Your task to perform on an android device: turn on notifications settings in the gmail app Image 0: 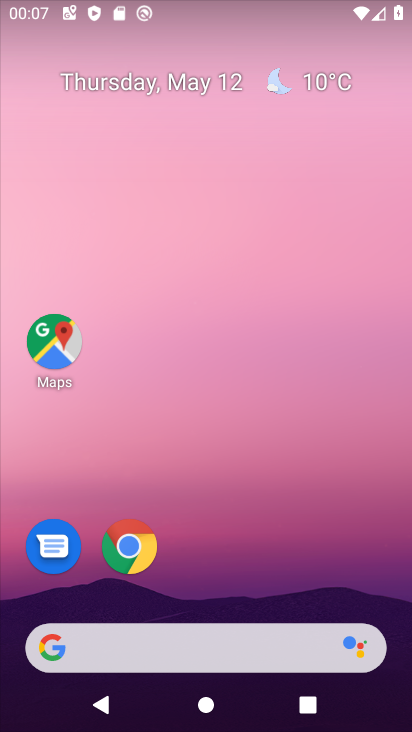
Step 0: drag from (152, 587) to (152, 236)
Your task to perform on an android device: turn on notifications settings in the gmail app Image 1: 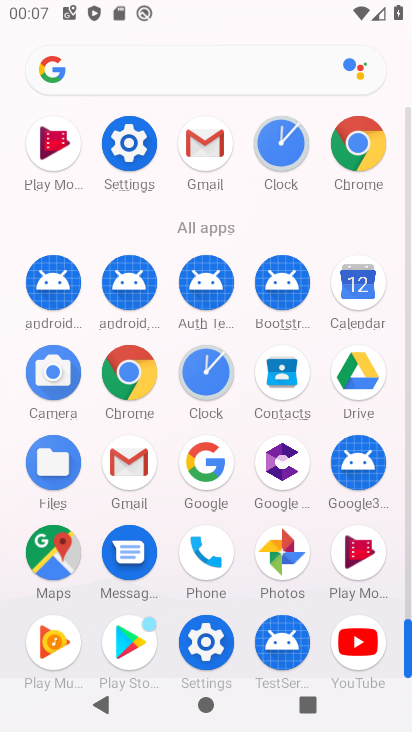
Step 1: click (130, 473)
Your task to perform on an android device: turn on notifications settings in the gmail app Image 2: 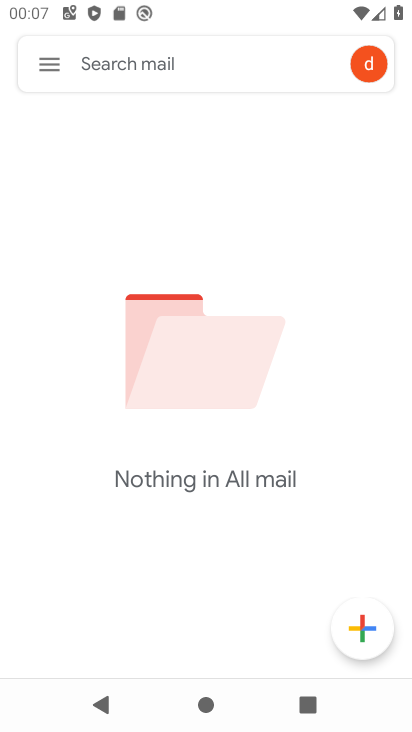
Step 2: click (50, 57)
Your task to perform on an android device: turn on notifications settings in the gmail app Image 3: 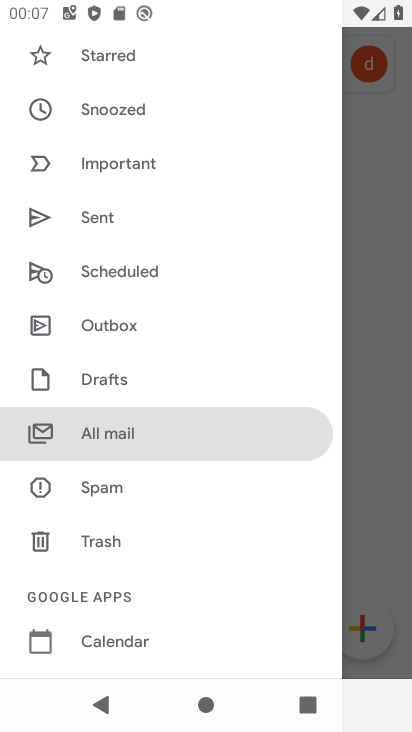
Step 3: drag from (147, 574) to (204, 325)
Your task to perform on an android device: turn on notifications settings in the gmail app Image 4: 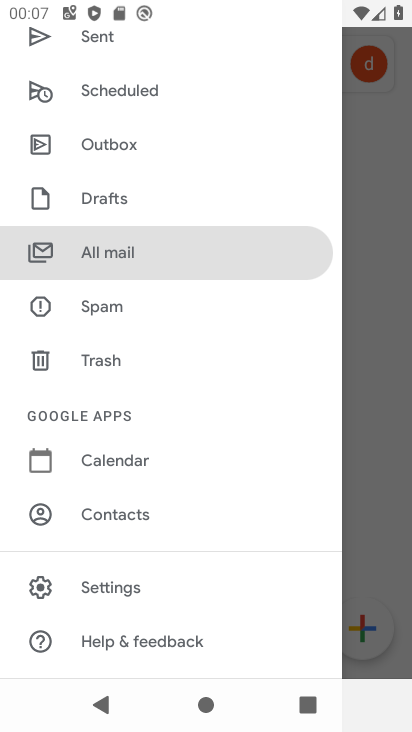
Step 4: click (107, 588)
Your task to perform on an android device: turn on notifications settings in the gmail app Image 5: 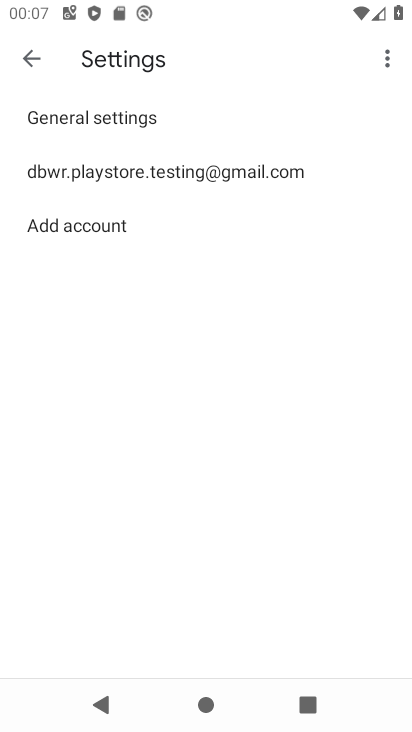
Step 5: click (185, 166)
Your task to perform on an android device: turn on notifications settings in the gmail app Image 6: 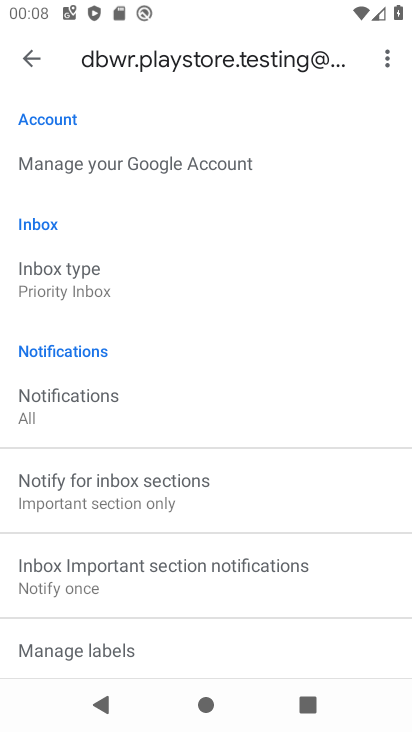
Step 6: click (76, 410)
Your task to perform on an android device: turn on notifications settings in the gmail app Image 7: 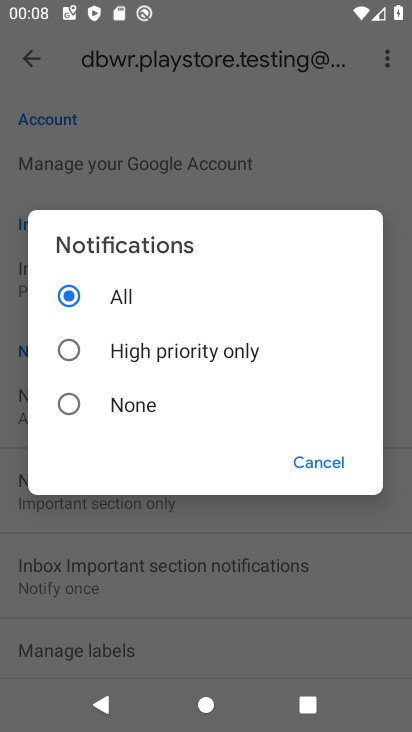
Step 7: task complete